Your task to perform on an android device: turn off priority inbox in the gmail app Image 0: 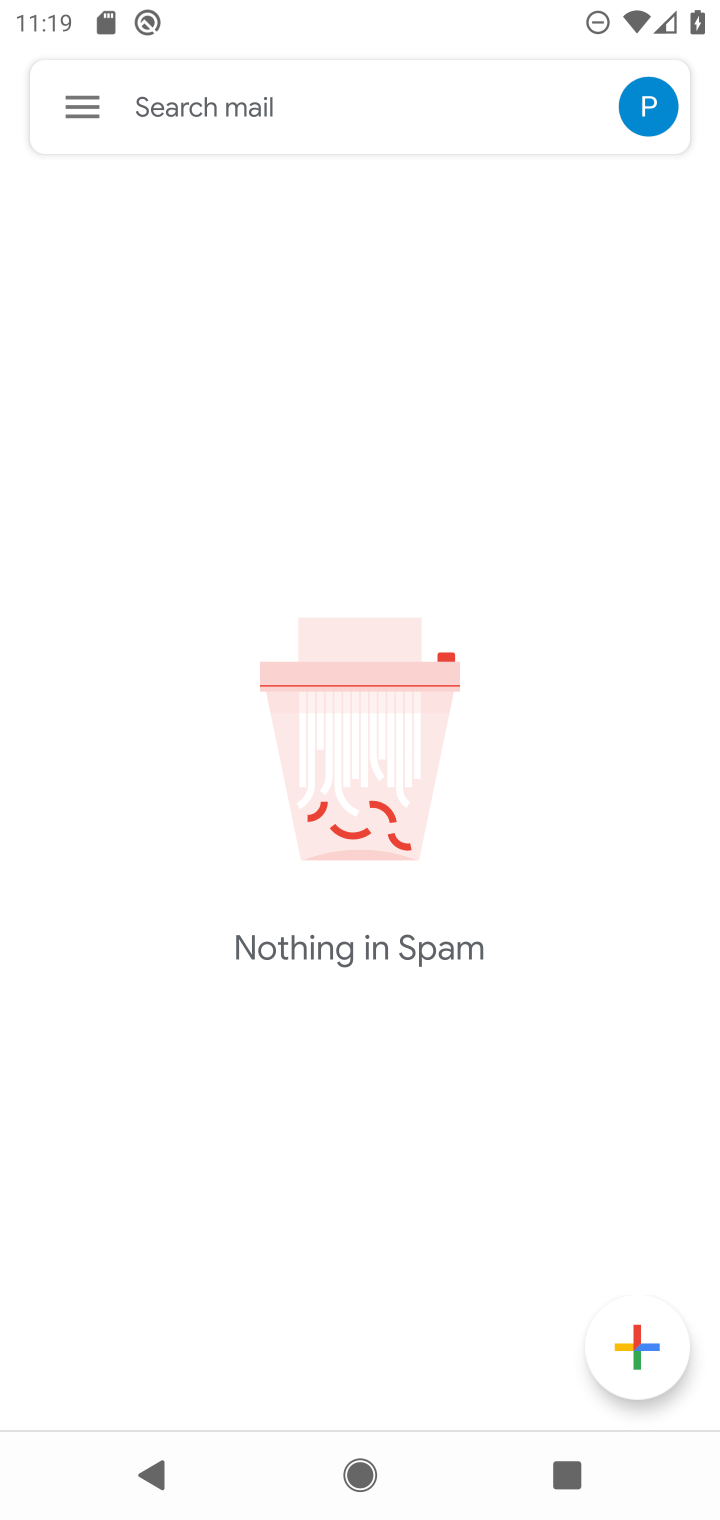
Step 0: click (86, 103)
Your task to perform on an android device: turn off priority inbox in the gmail app Image 1: 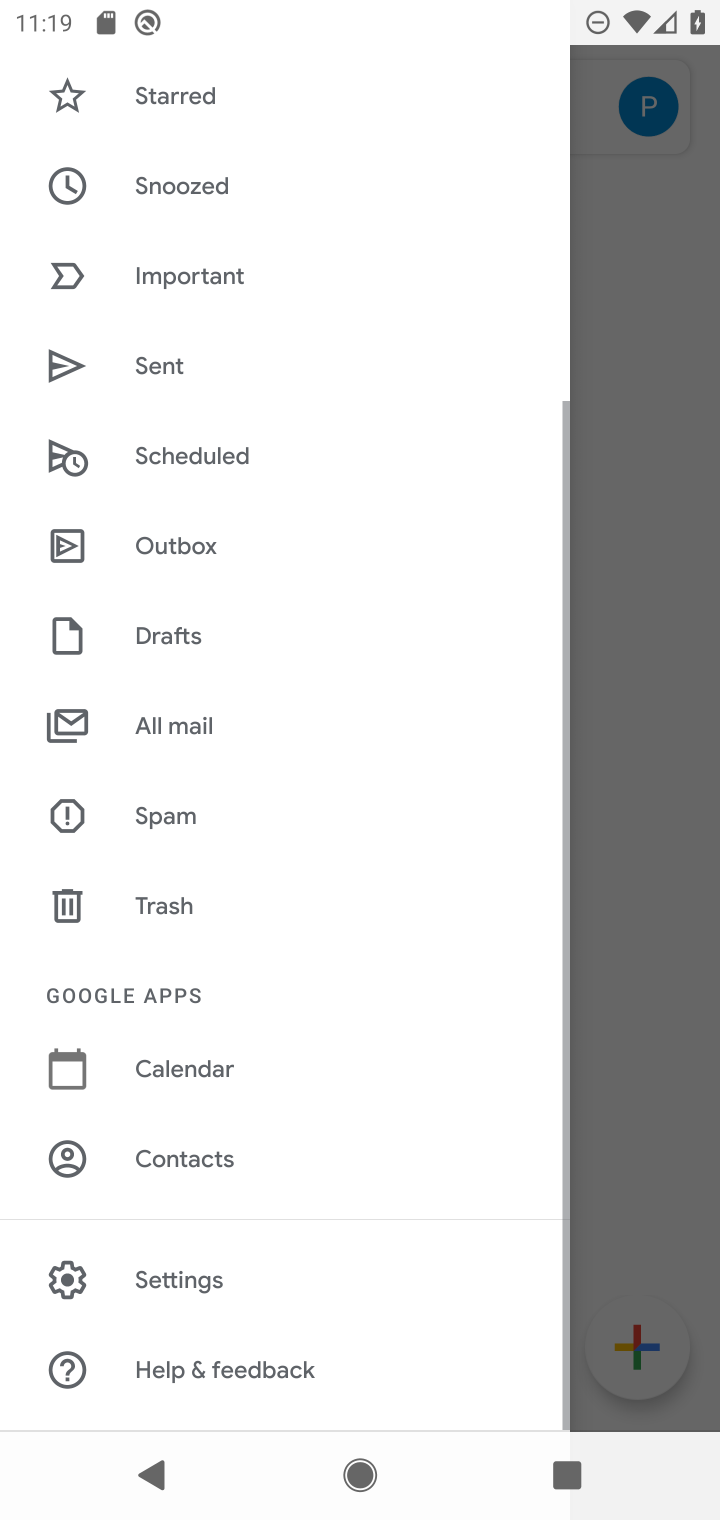
Step 1: click (177, 1289)
Your task to perform on an android device: turn off priority inbox in the gmail app Image 2: 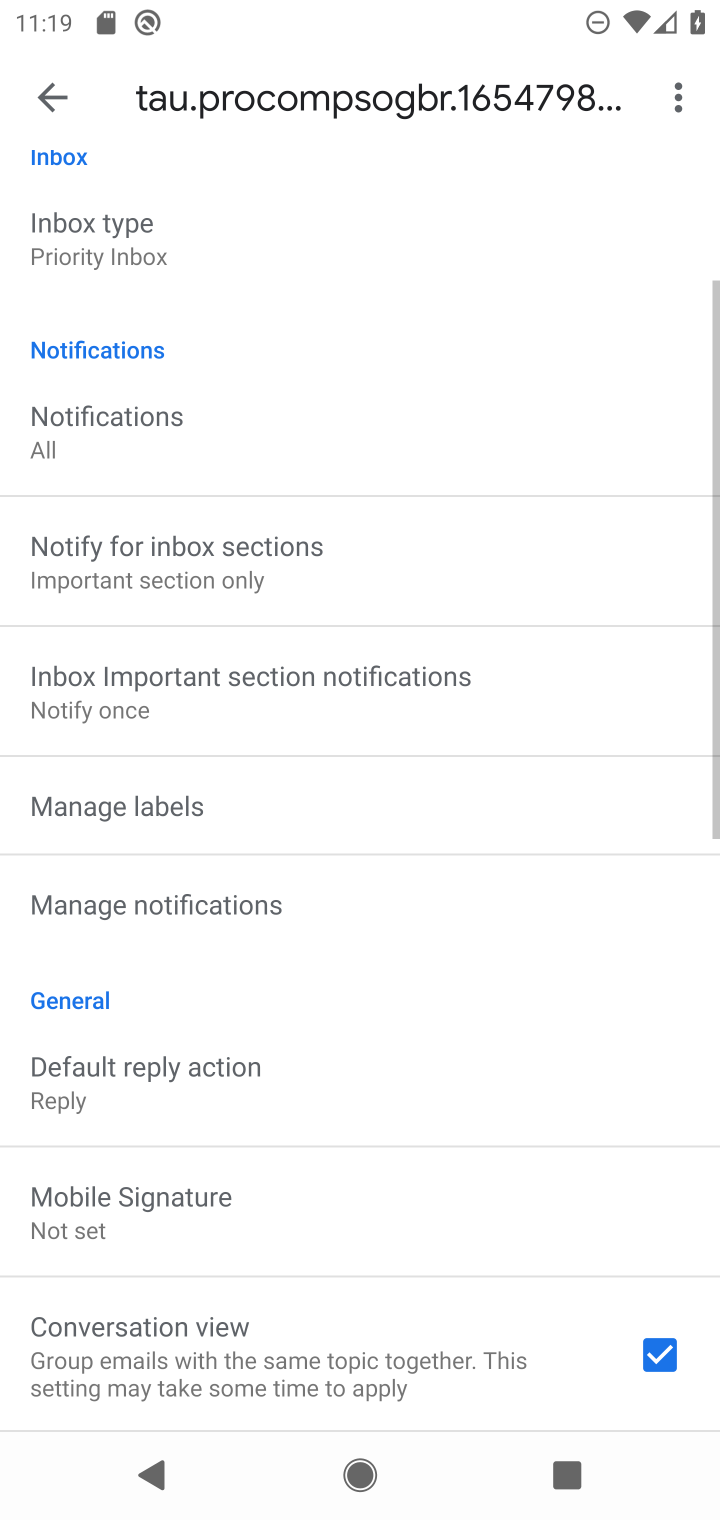
Step 2: click (102, 240)
Your task to perform on an android device: turn off priority inbox in the gmail app Image 3: 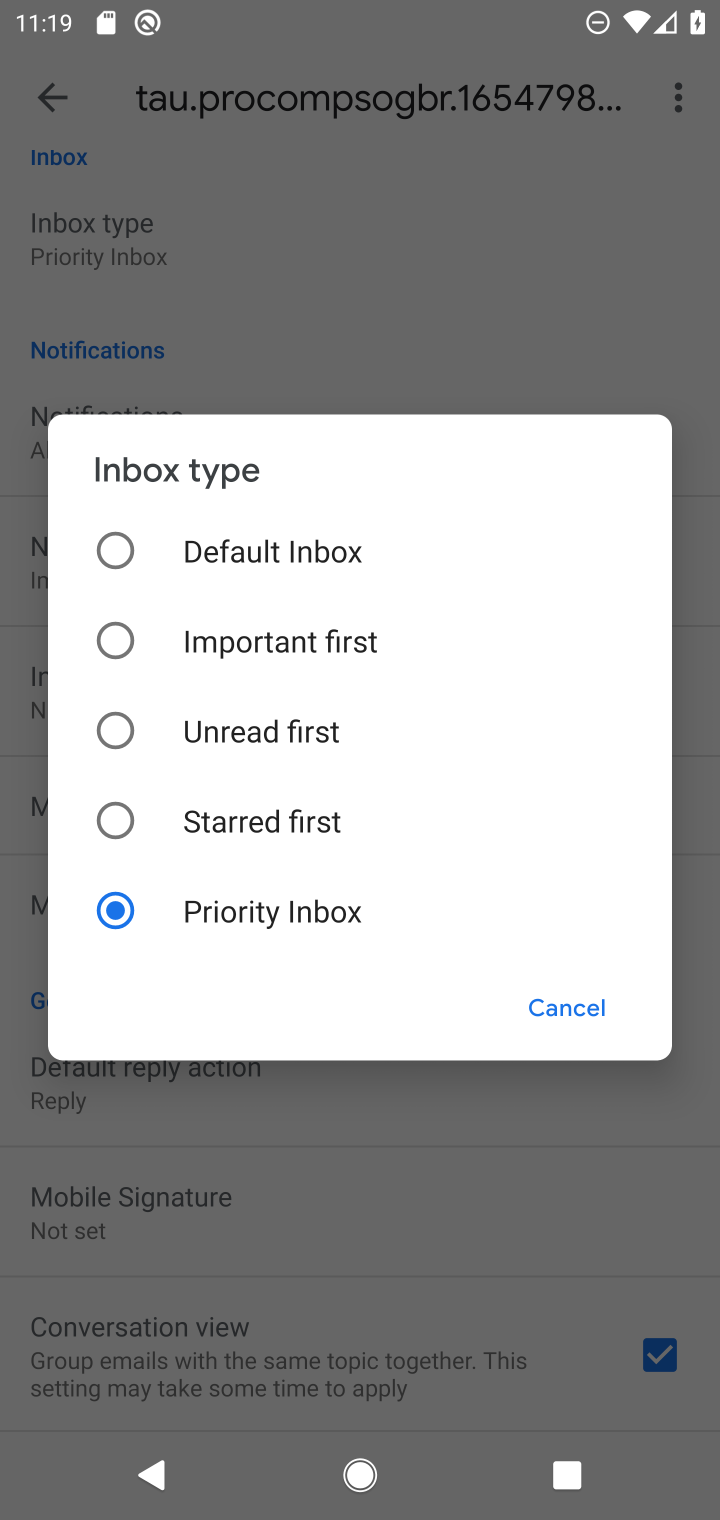
Step 3: click (109, 554)
Your task to perform on an android device: turn off priority inbox in the gmail app Image 4: 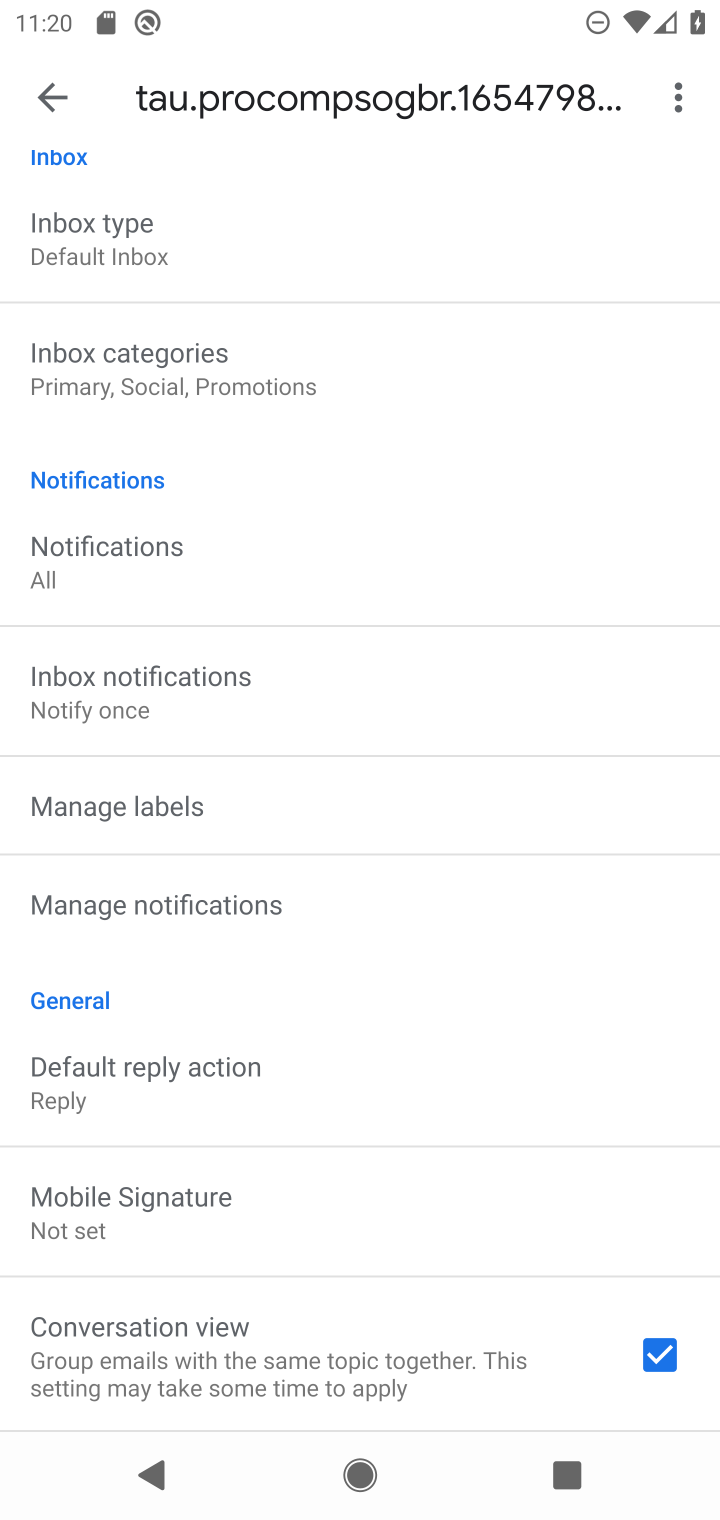
Step 4: task complete